Your task to perform on an android device: Open calendar and show me the second week of next month Image 0: 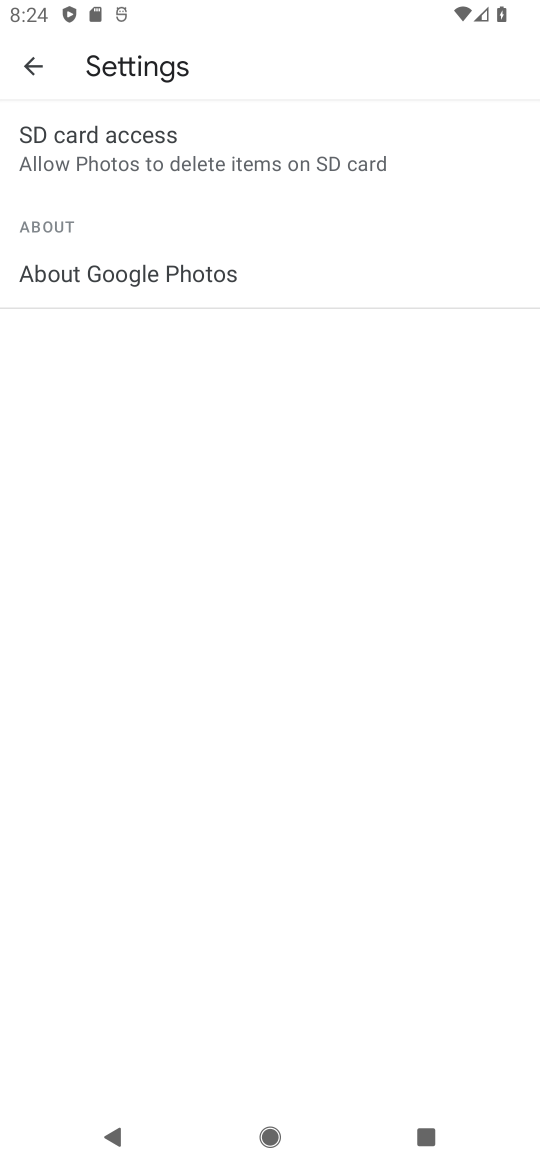
Step 0: press home button
Your task to perform on an android device: Open calendar and show me the second week of next month Image 1: 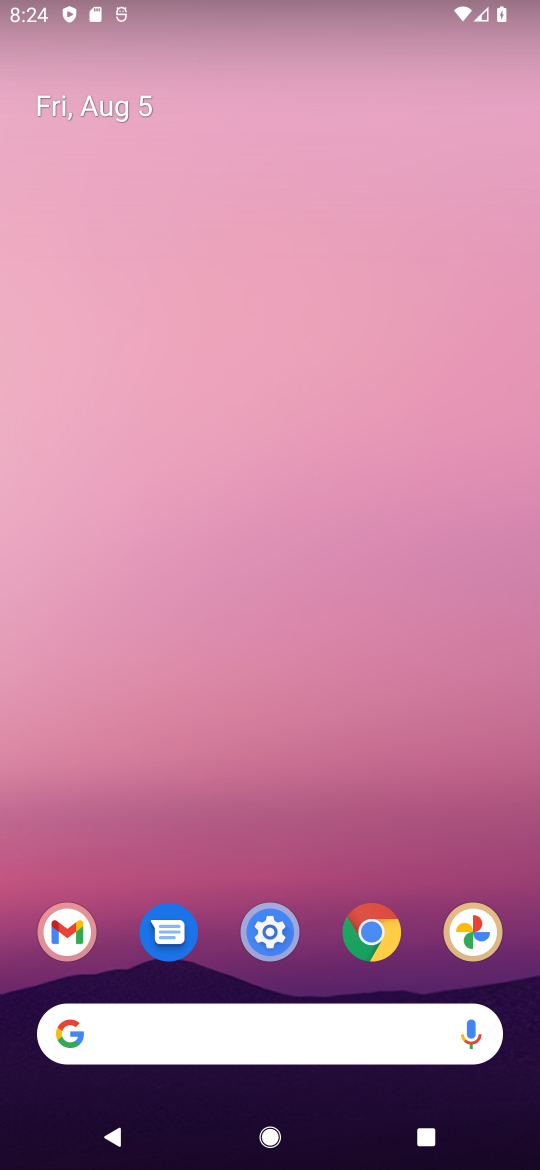
Step 1: drag from (199, 886) to (272, 144)
Your task to perform on an android device: Open calendar and show me the second week of next month Image 2: 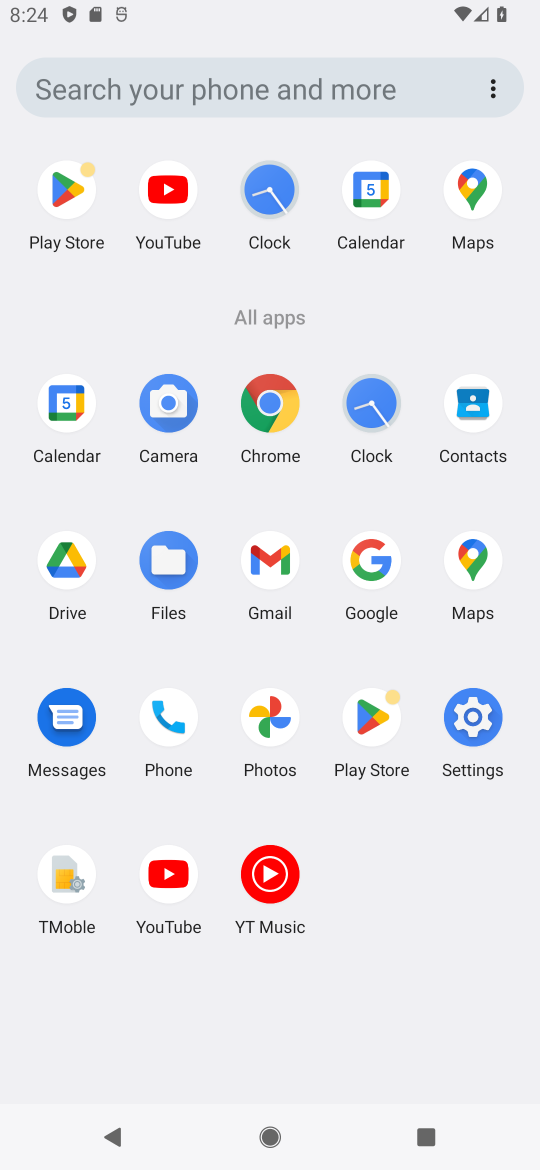
Step 2: drag from (371, 180) to (125, 299)
Your task to perform on an android device: Open calendar and show me the second week of next month Image 3: 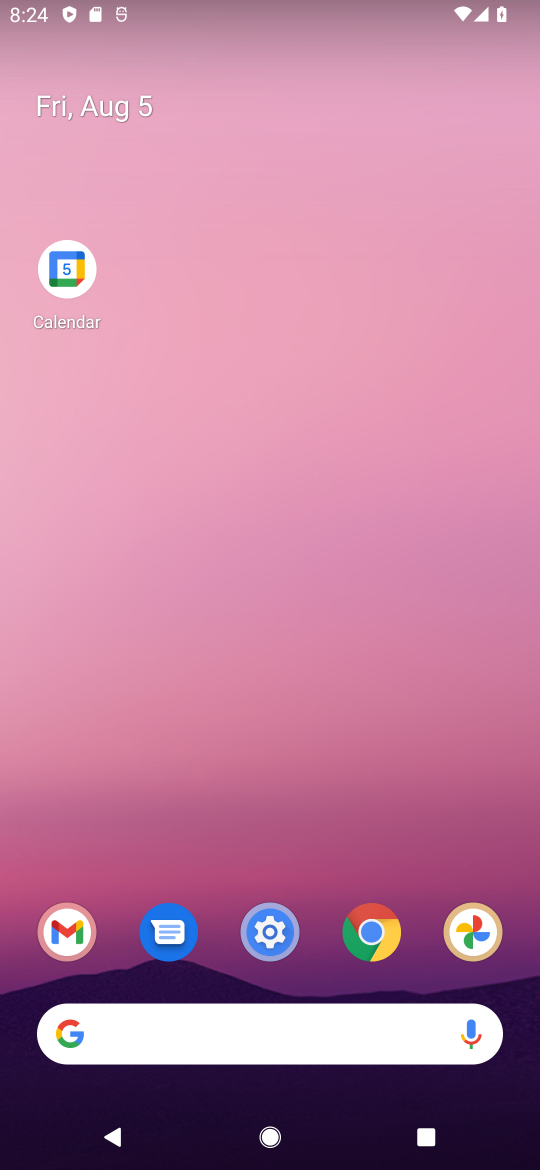
Step 3: click (100, 324)
Your task to perform on an android device: Open calendar and show me the second week of next month Image 4: 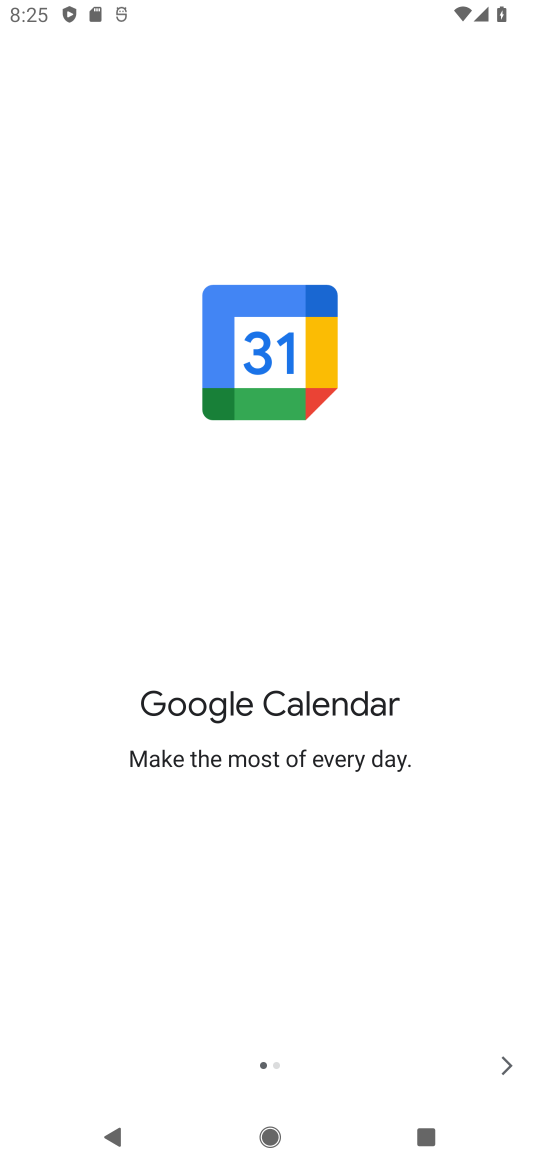
Step 4: click (503, 1084)
Your task to perform on an android device: Open calendar and show me the second week of next month Image 5: 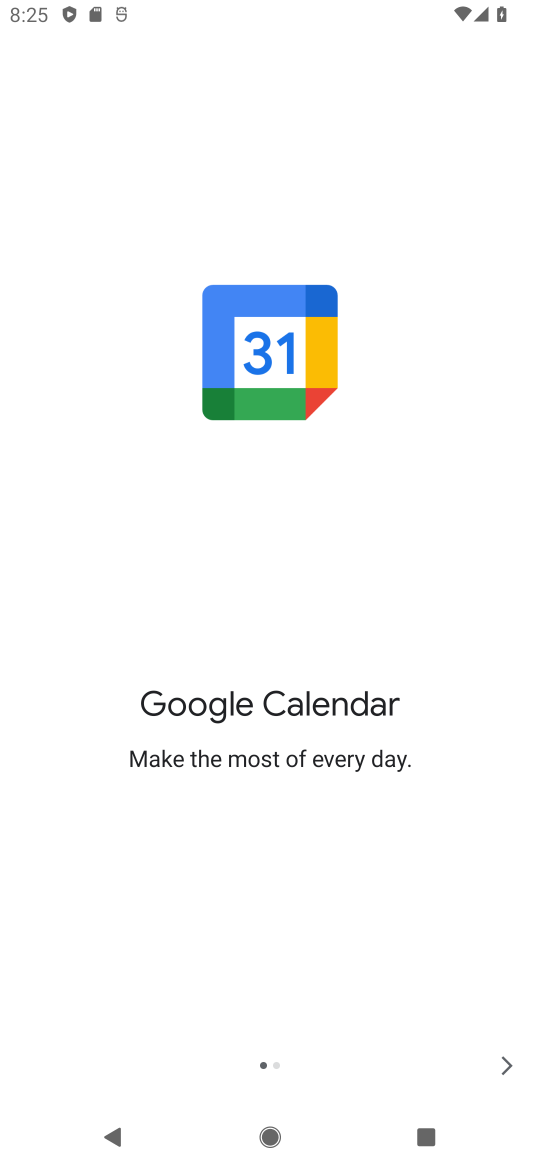
Step 5: click (503, 1084)
Your task to perform on an android device: Open calendar and show me the second week of next month Image 6: 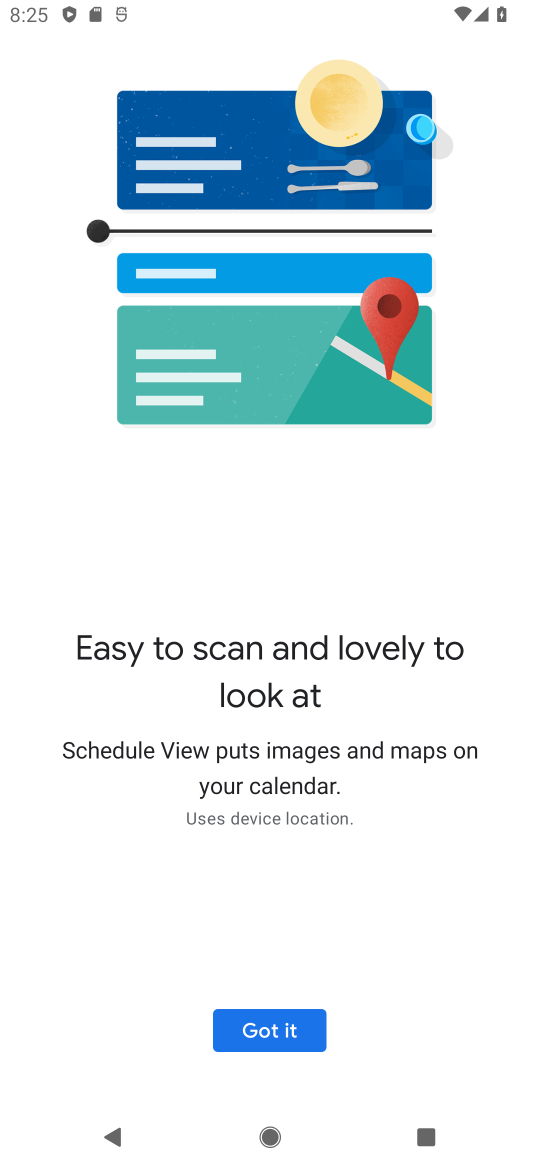
Step 6: click (502, 1076)
Your task to perform on an android device: Open calendar and show me the second week of next month Image 7: 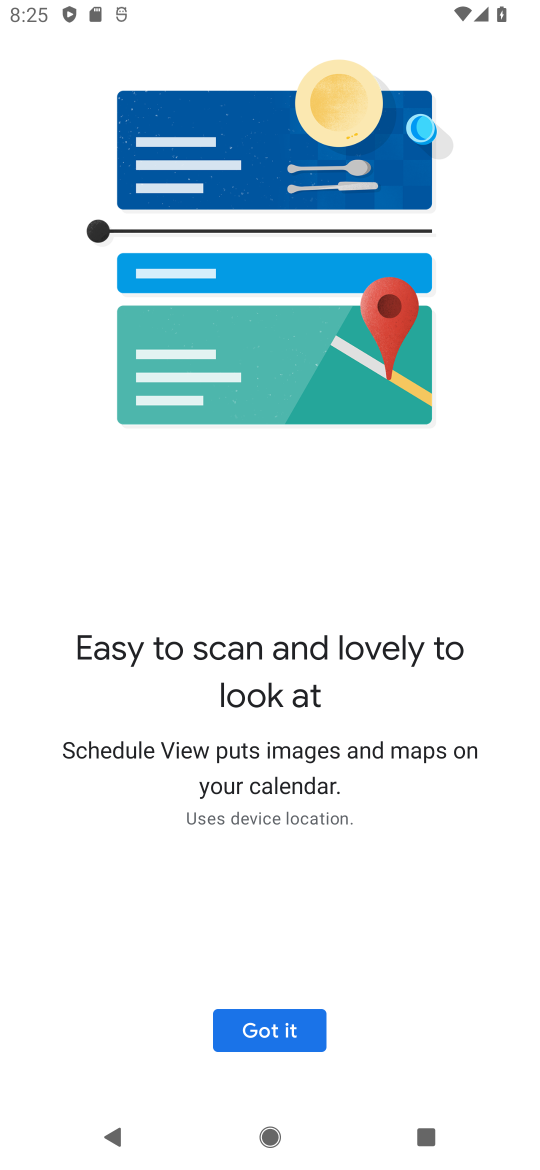
Step 7: click (250, 1036)
Your task to perform on an android device: Open calendar and show me the second week of next month Image 8: 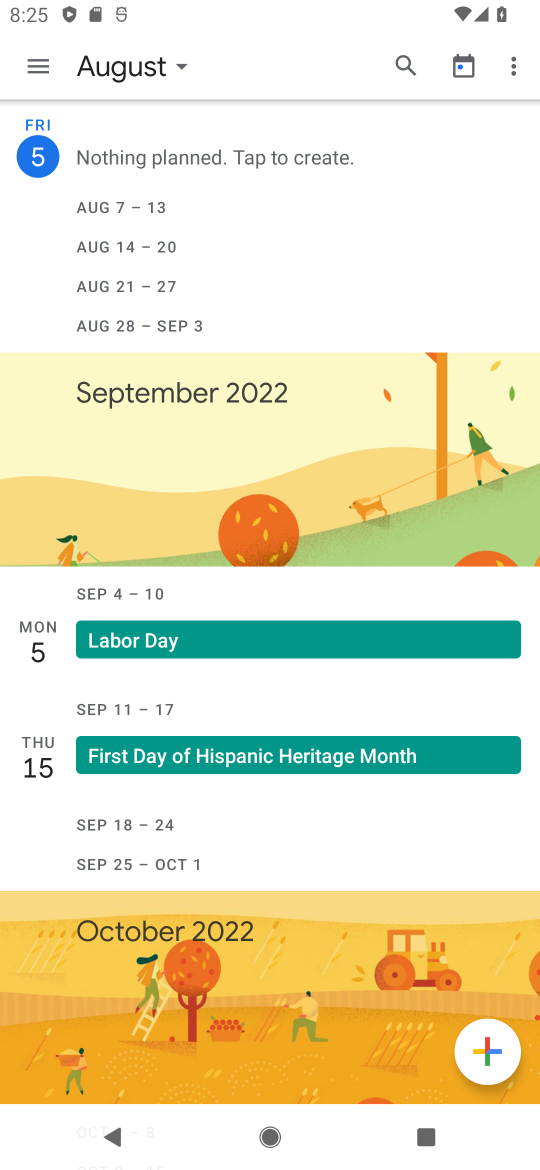
Step 8: click (153, 73)
Your task to perform on an android device: Open calendar and show me the second week of next month Image 9: 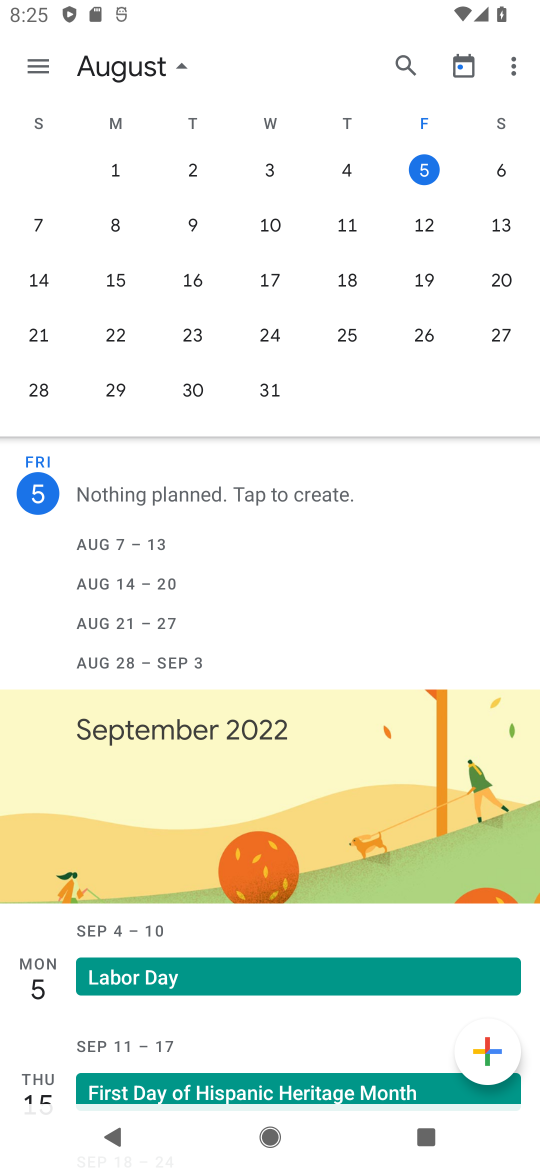
Step 9: drag from (506, 272) to (28, 242)
Your task to perform on an android device: Open calendar and show me the second week of next month Image 10: 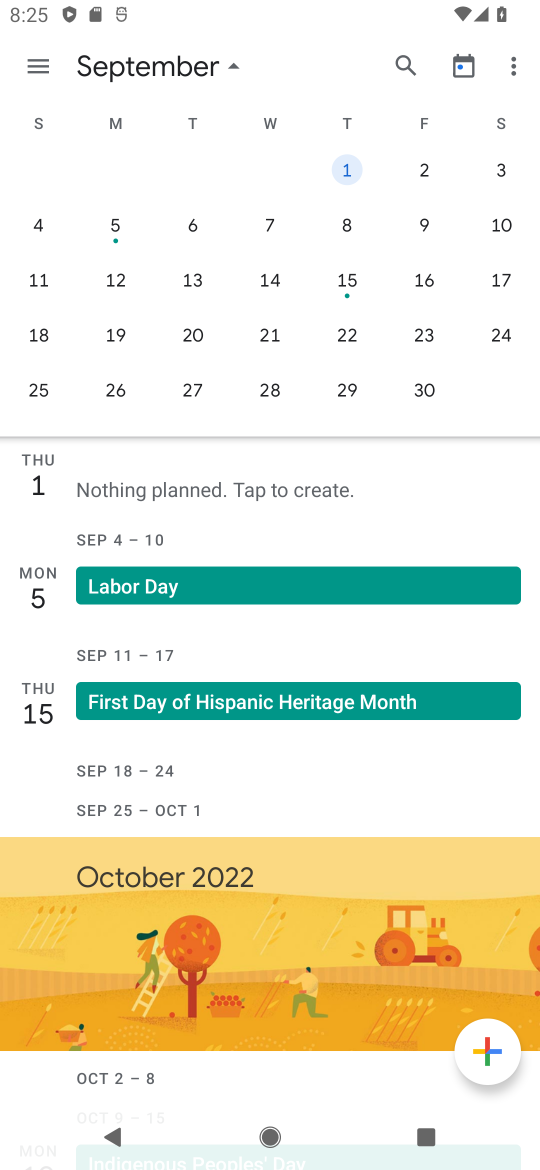
Step 10: click (52, 60)
Your task to perform on an android device: Open calendar and show me the second week of next month Image 11: 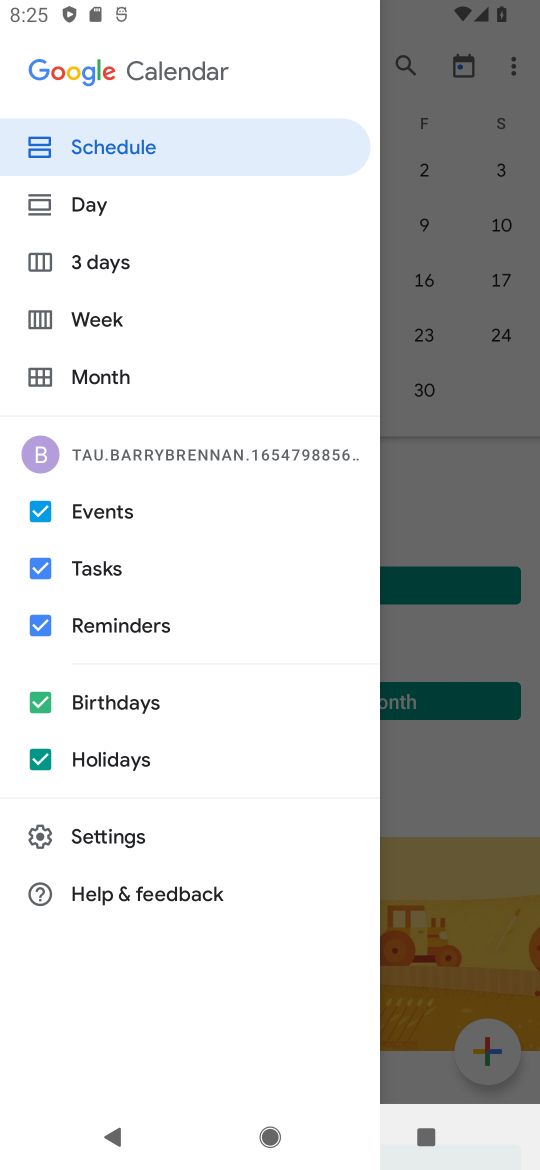
Step 11: click (113, 333)
Your task to perform on an android device: Open calendar and show me the second week of next month Image 12: 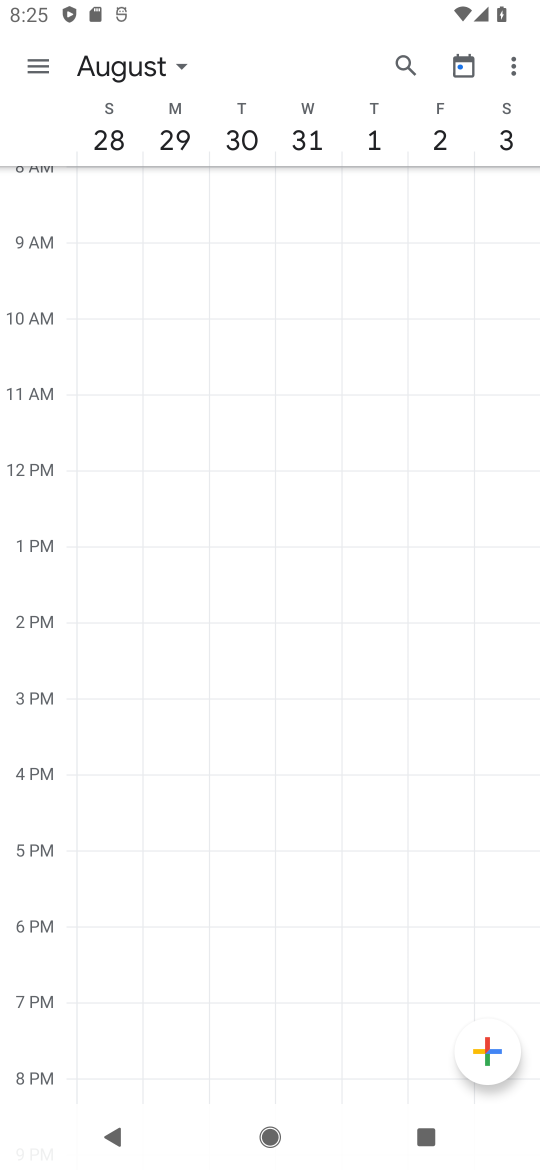
Step 12: task complete